Your task to perform on an android device: turn on sleep mode Image 0: 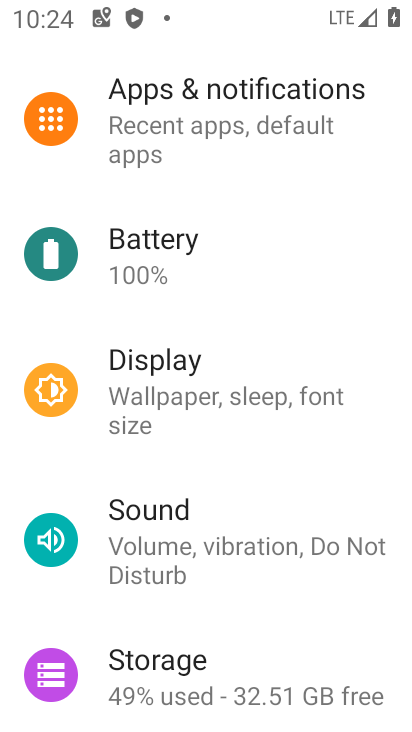
Step 0: drag from (203, 632) to (288, 234)
Your task to perform on an android device: turn on sleep mode Image 1: 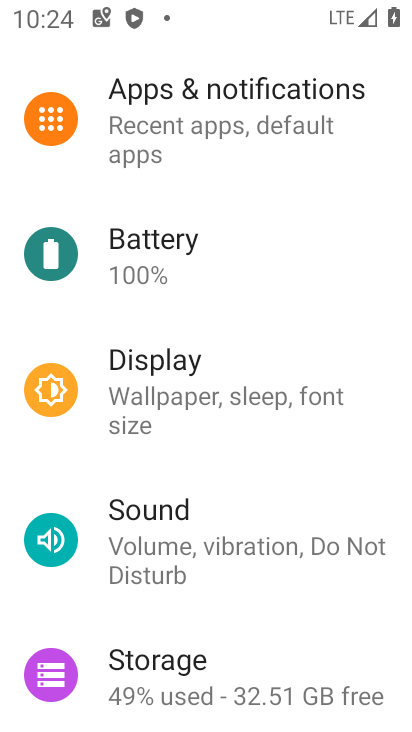
Step 1: drag from (94, 162) to (168, 631)
Your task to perform on an android device: turn on sleep mode Image 2: 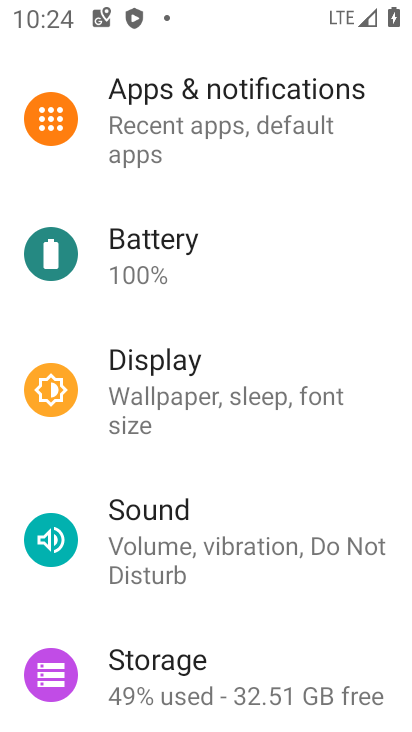
Step 2: click (190, 240)
Your task to perform on an android device: turn on sleep mode Image 3: 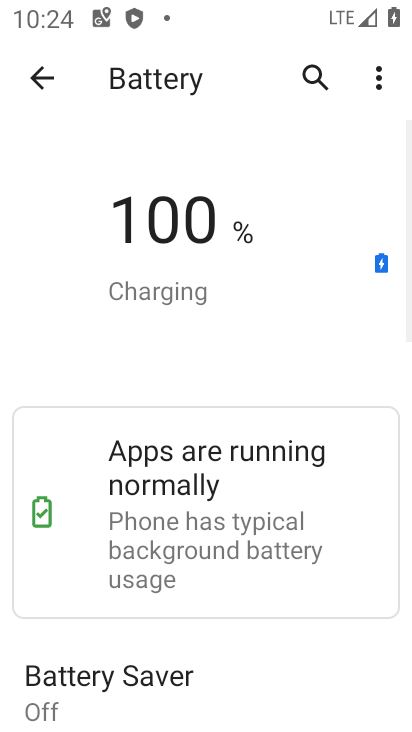
Step 3: task complete